Your task to perform on an android device: set an alarm Image 0: 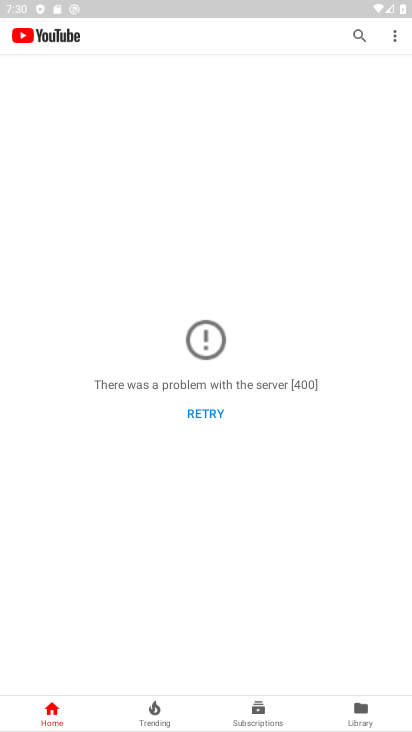
Step 0: press home button
Your task to perform on an android device: set an alarm Image 1: 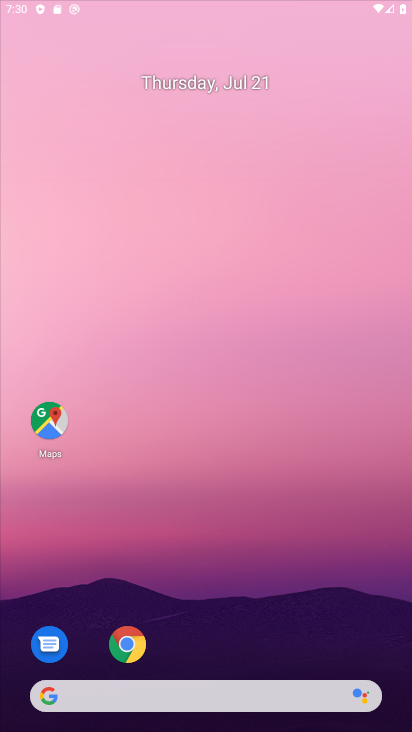
Step 1: drag from (201, 664) to (188, 190)
Your task to perform on an android device: set an alarm Image 2: 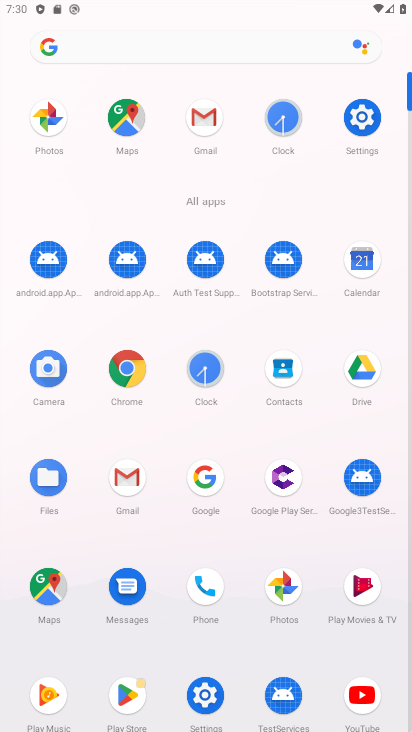
Step 2: click (287, 116)
Your task to perform on an android device: set an alarm Image 3: 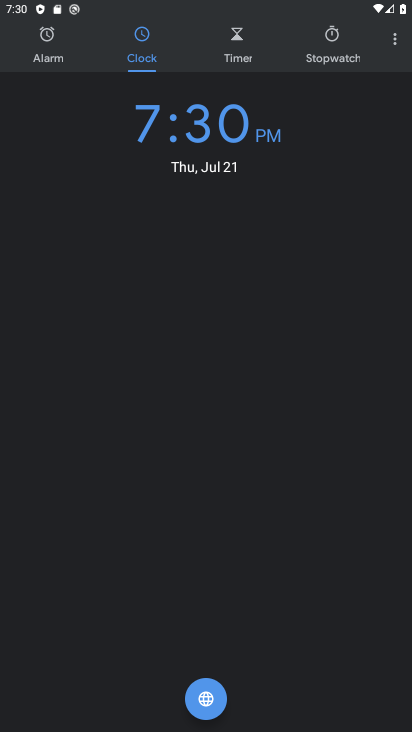
Step 3: click (49, 35)
Your task to perform on an android device: set an alarm Image 4: 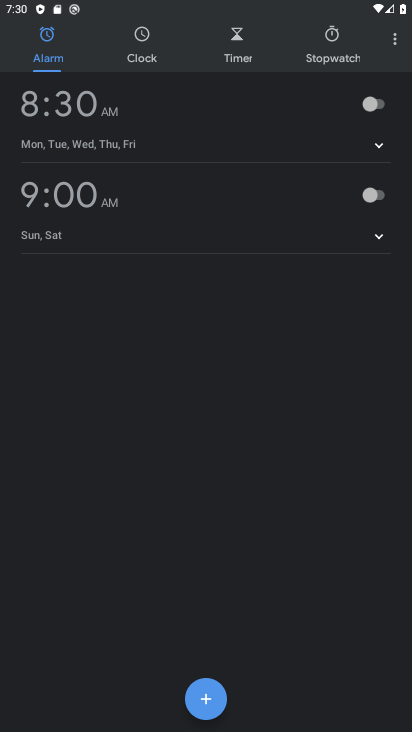
Step 4: click (388, 105)
Your task to perform on an android device: set an alarm Image 5: 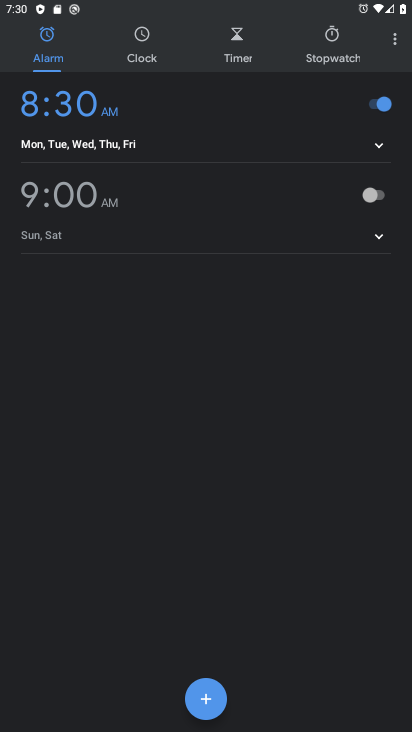
Step 5: task complete